Your task to perform on an android device: When is my next meeting? Image 0: 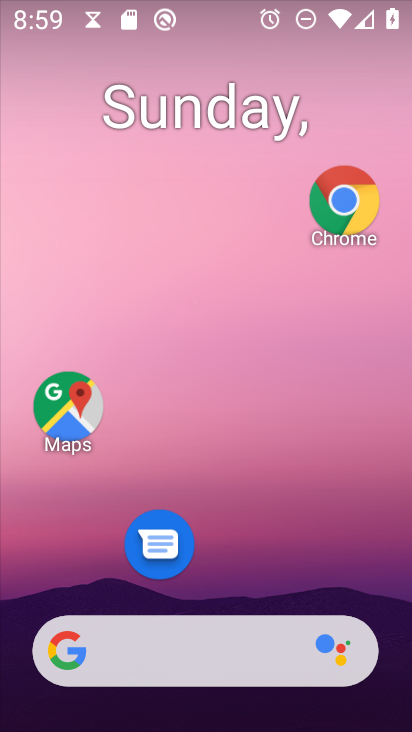
Step 0: drag from (270, 573) to (218, 67)
Your task to perform on an android device: When is my next meeting? Image 1: 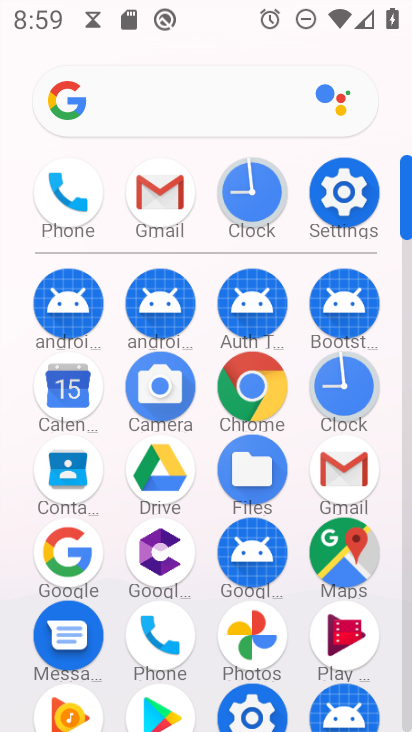
Step 1: click (70, 394)
Your task to perform on an android device: When is my next meeting? Image 2: 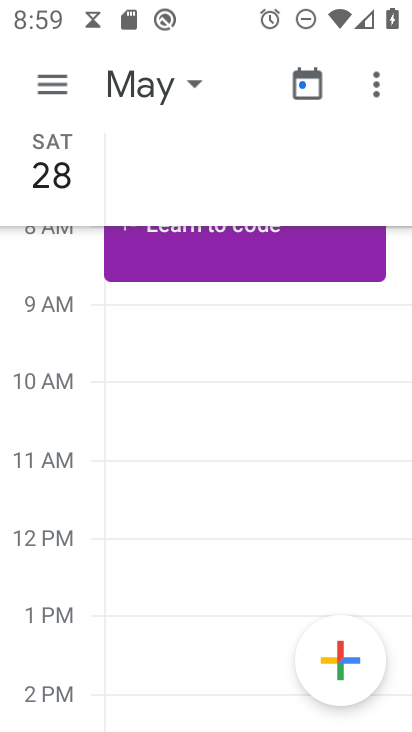
Step 2: click (156, 101)
Your task to perform on an android device: When is my next meeting? Image 3: 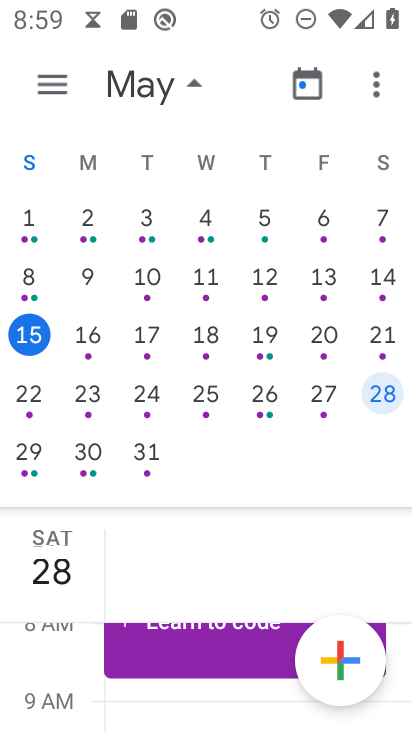
Step 3: click (34, 330)
Your task to perform on an android device: When is my next meeting? Image 4: 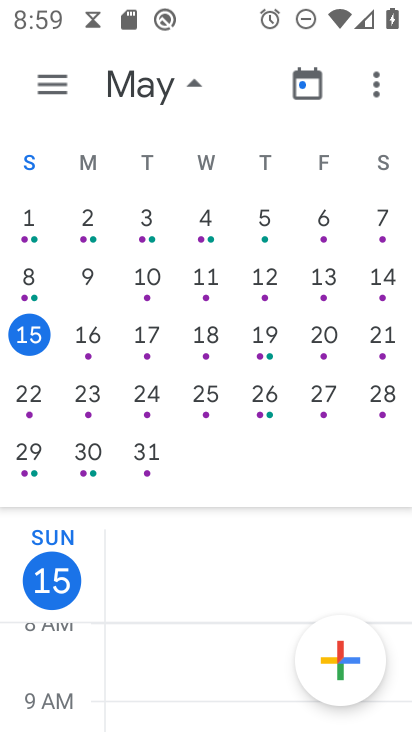
Step 4: drag from (270, 552) to (264, 52)
Your task to perform on an android device: When is my next meeting? Image 5: 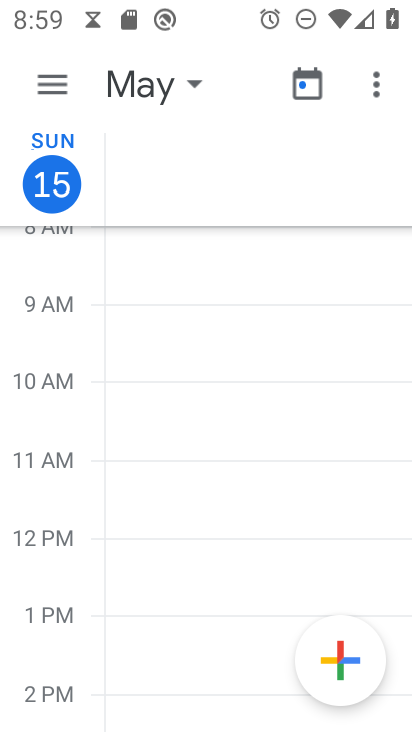
Step 5: click (45, 88)
Your task to perform on an android device: When is my next meeting? Image 6: 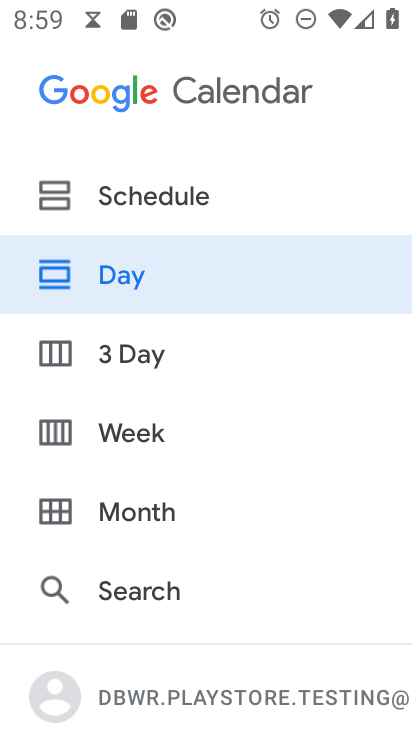
Step 6: click (183, 209)
Your task to perform on an android device: When is my next meeting? Image 7: 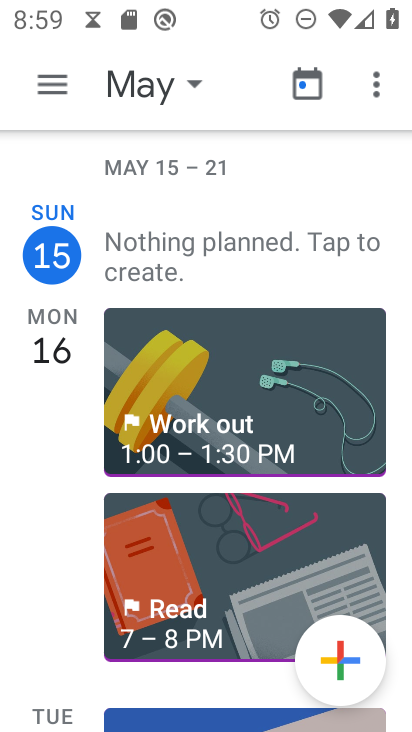
Step 7: task complete